Your task to perform on an android device: Check the news Image 0: 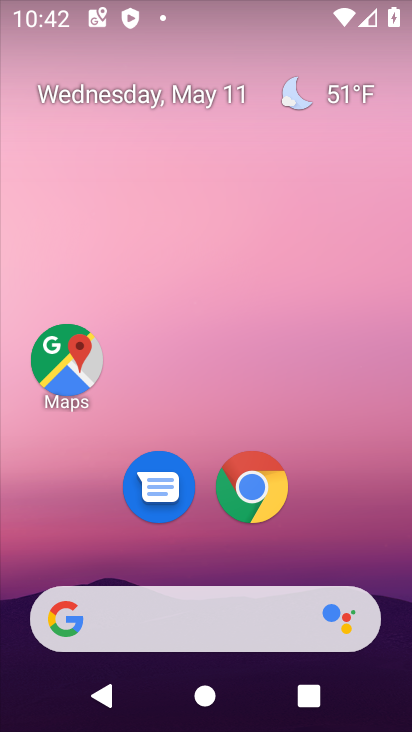
Step 0: drag from (350, 529) to (282, 95)
Your task to perform on an android device: Check the news Image 1: 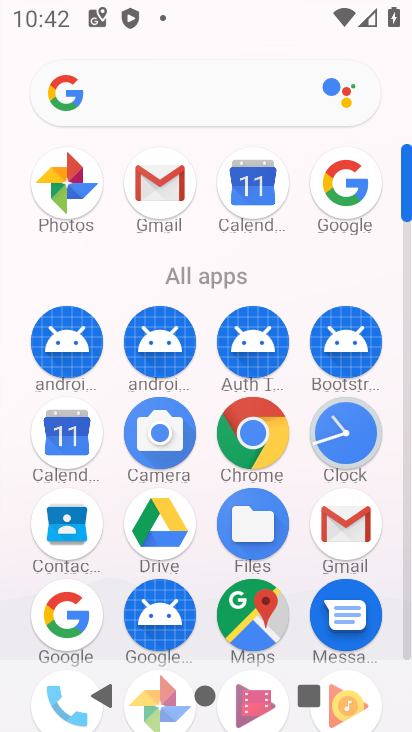
Step 1: click (258, 436)
Your task to perform on an android device: Check the news Image 2: 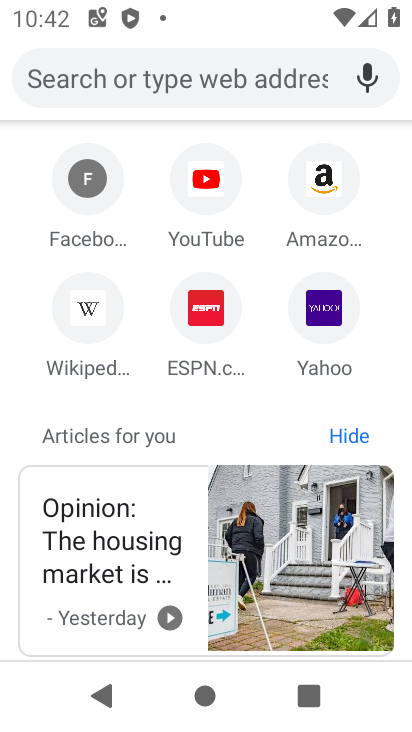
Step 2: click (193, 82)
Your task to perform on an android device: Check the news Image 3: 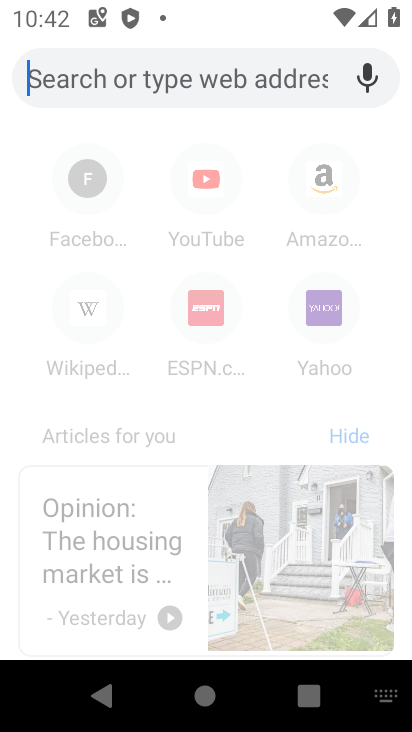
Step 3: type "news"
Your task to perform on an android device: Check the news Image 4: 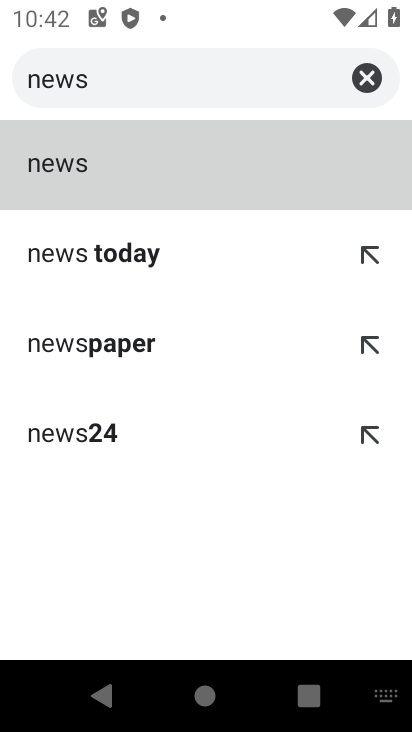
Step 4: click (88, 183)
Your task to perform on an android device: Check the news Image 5: 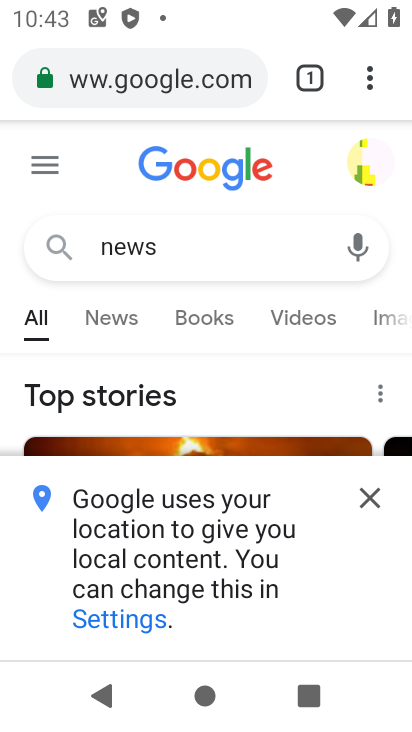
Step 5: task complete